Your task to perform on an android device: toggle notifications settings in the gmail app Image 0: 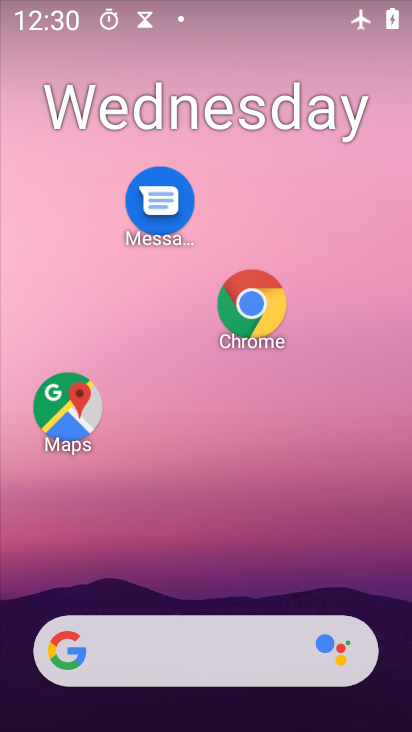
Step 0: drag from (315, 516) to (351, 218)
Your task to perform on an android device: toggle notifications settings in the gmail app Image 1: 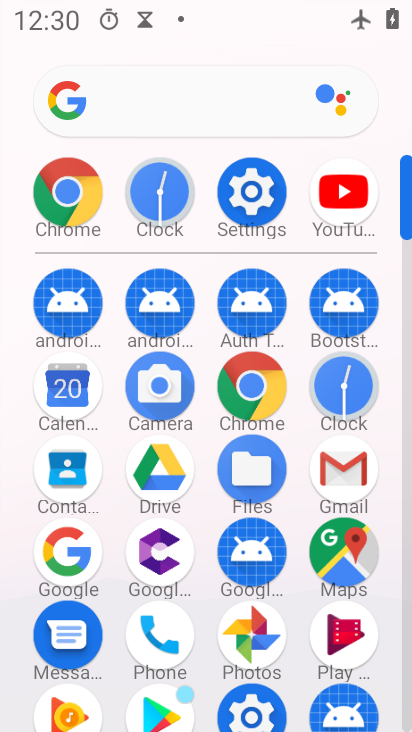
Step 1: click (362, 467)
Your task to perform on an android device: toggle notifications settings in the gmail app Image 2: 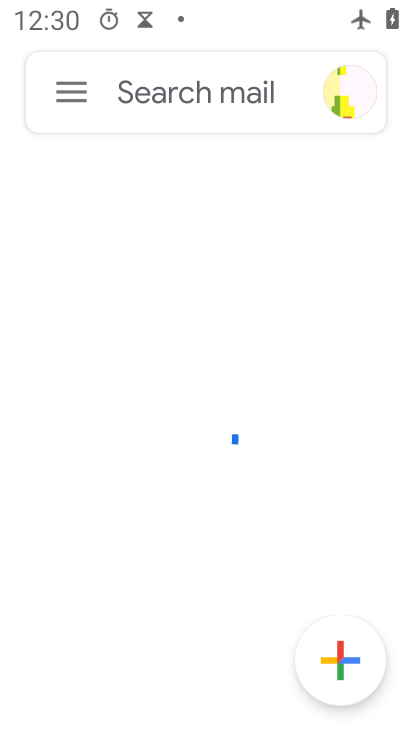
Step 2: click (73, 91)
Your task to perform on an android device: toggle notifications settings in the gmail app Image 3: 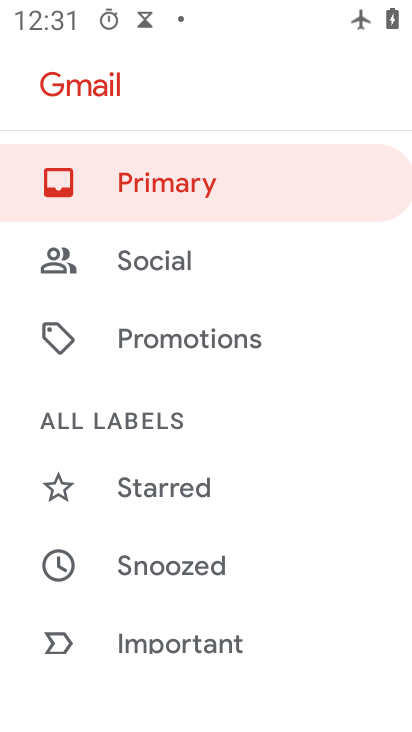
Step 3: click (151, 405)
Your task to perform on an android device: toggle notifications settings in the gmail app Image 4: 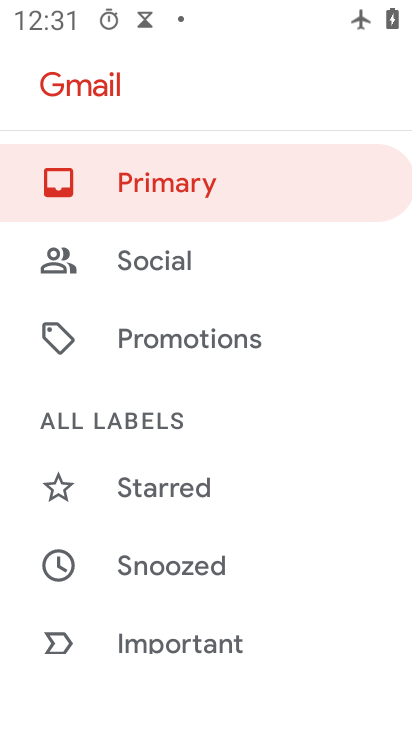
Step 4: drag from (264, 627) to (323, 94)
Your task to perform on an android device: toggle notifications settings in the gmail app Image 5: 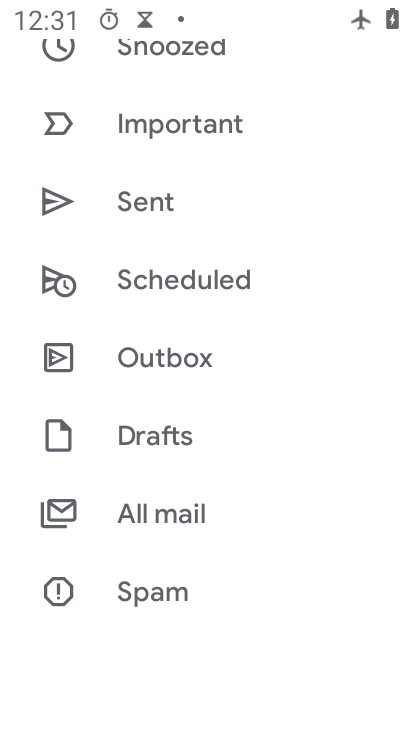
Step 5: drag from (207, 561) to (265, 83)
Your task to perform on an android device: toggle notifications settings in the gmail app Image 6: 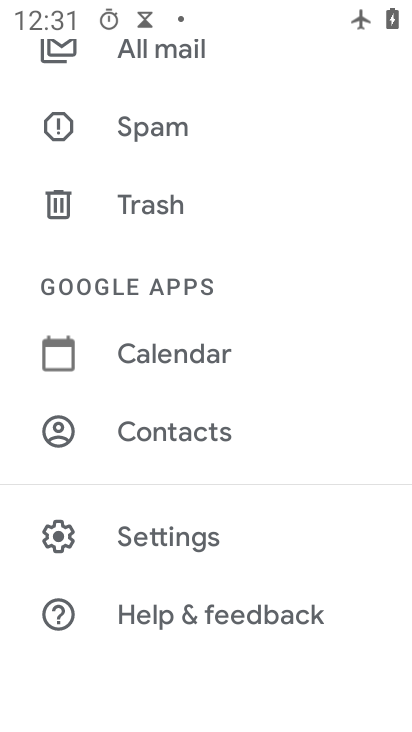
Step 6: click (140, 532)
Your task to perform on an android device: toggle notifications settings in the gmail app Image 7: 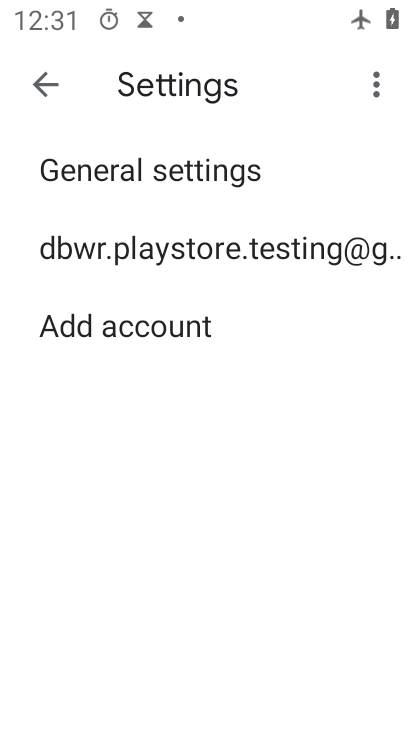
Step 7: click (246, 267)
Your task to perform on an android device: toggle notifications settings in the gmail app Image 8: 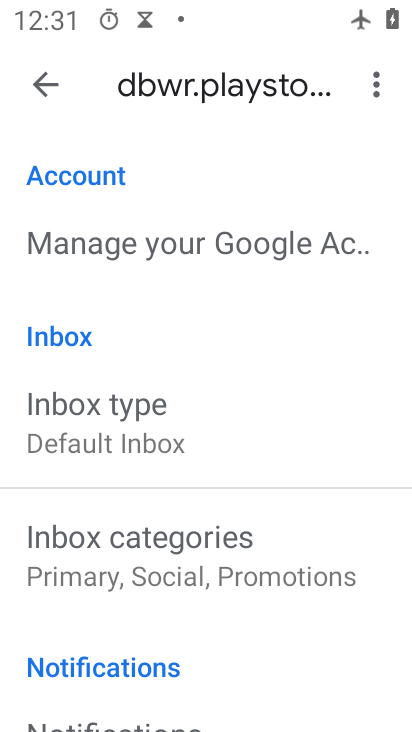
Step 8: drag from (232, 646) to (272, 207)
Your task to perform on an android device: toggle notifications settings in the gmail app Image 9: 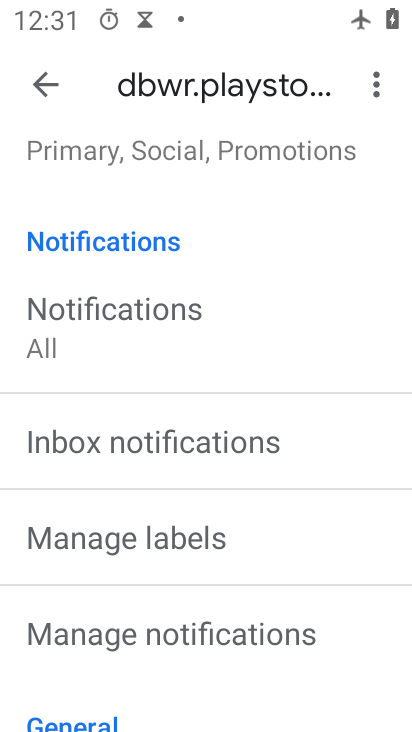
Step 9: click (114, 313)
Your task to perform on an android device: toggle notifications settings in the gmail app Image 10: 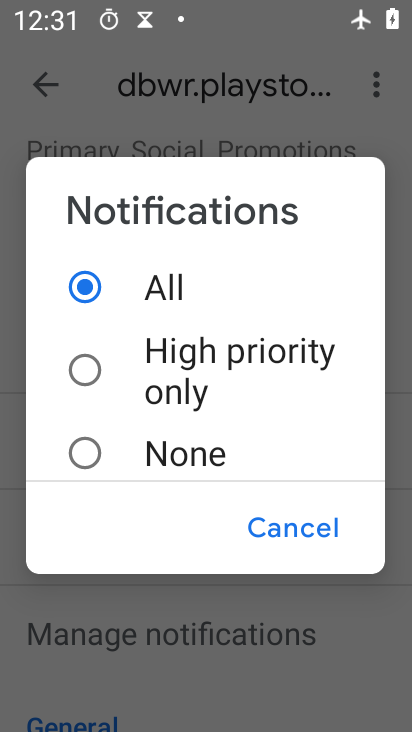
Step 10: click (197, 460)
Your task to perform on an android device: toggle notifications settings in the gmail app Image 11: 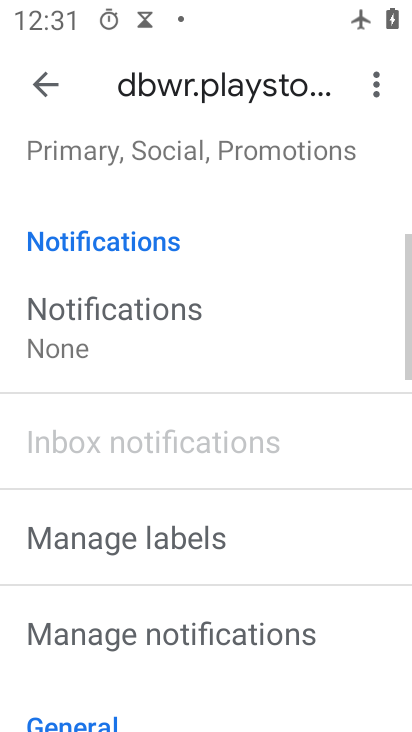
Step 11: task complete